Your task to perform on an android device: delete a single message in the gmail app Image 0: 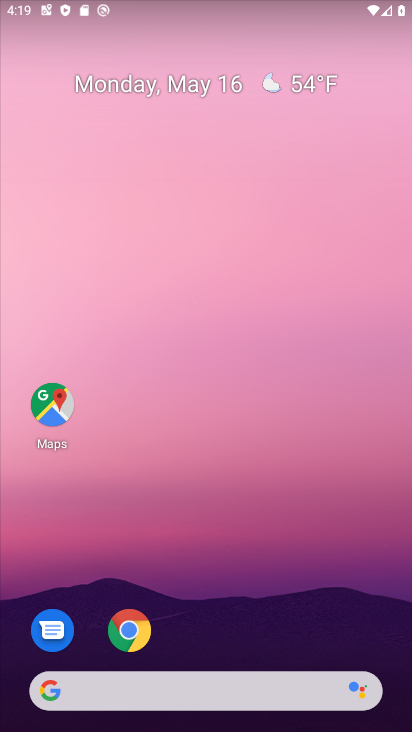
Step 0: drag from (256, 629) to (181, 97)
Your task to perform on an android device: delete a single message in the gmail app Image 1: 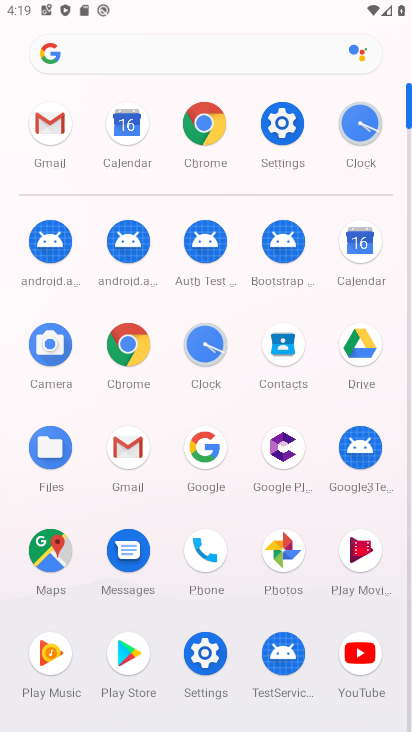
Step 1: click (53, 122)
Your task to perform on an android device: delete a single message in the gmail app Image 2: 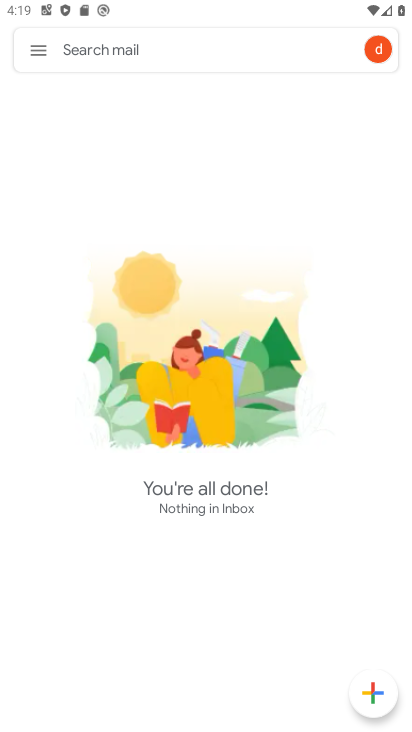
Step 2: click (42, 61)
Your task to perform on an android device: delete a single message in the gmail app Image 3: 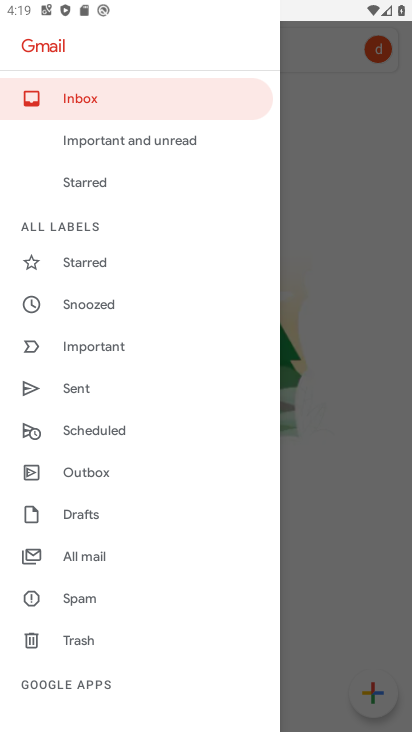
Step 3: click (119, 555)
Your task to perform on an android device: delete a single message in the gmail app Image 4: 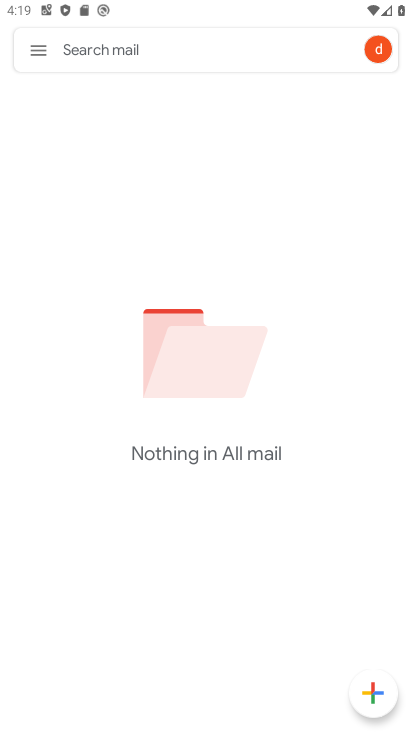
Step 4: task complete